Your task to perform on an android device: Toggle the flashlight Image 0: 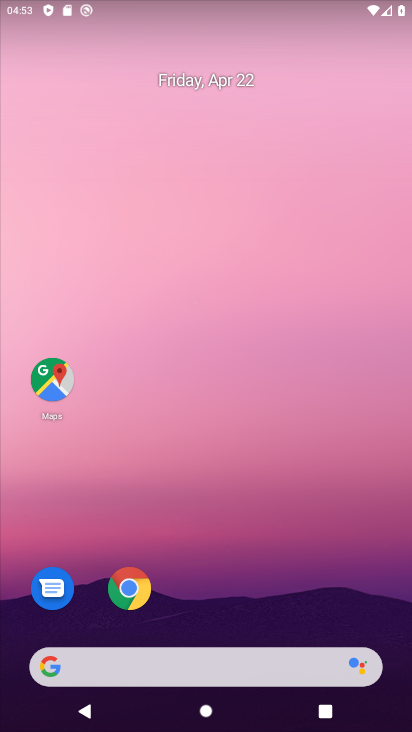
Step 0: drag from (222, 597) to (249, 117)
Your task to perform on an android device: Toggle the flashlight Image 1: 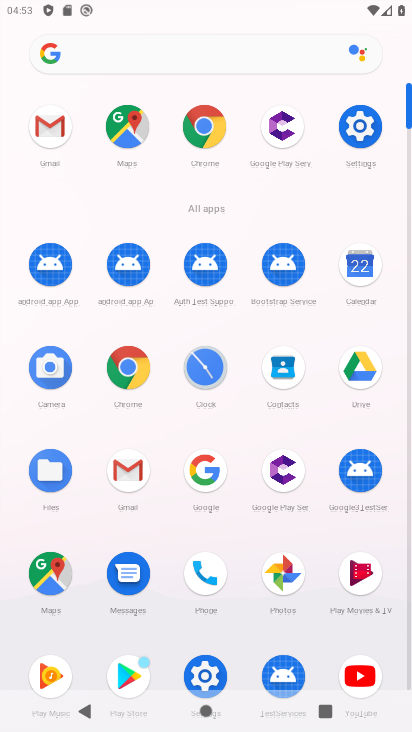
Step 1: click (359, 126)
Your task to perform on an android device: Toggle the flashlight Image 2: 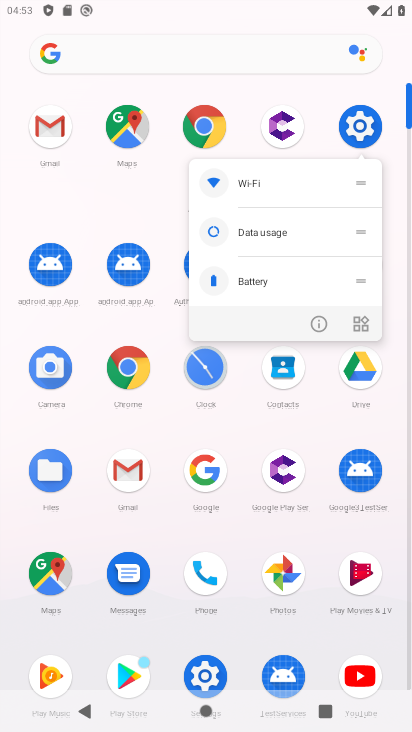
Step 2: click (354, 128)
Your task to perform on an android device: Toggle the flashlight Image 3: 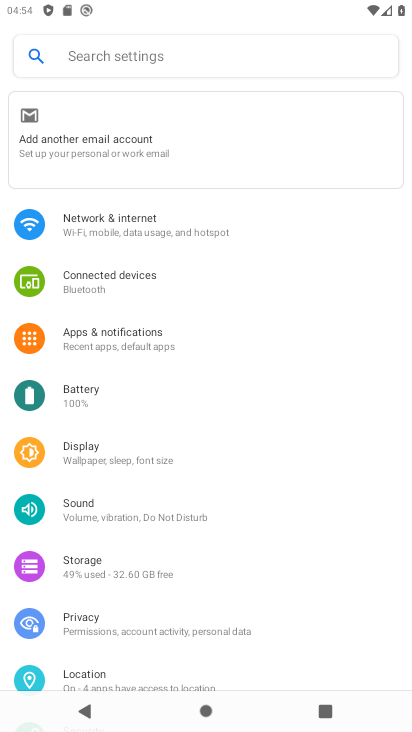
Step 3: click (127, 339)
Your task to perform on an android device: Toggle the flashlight Image 4: 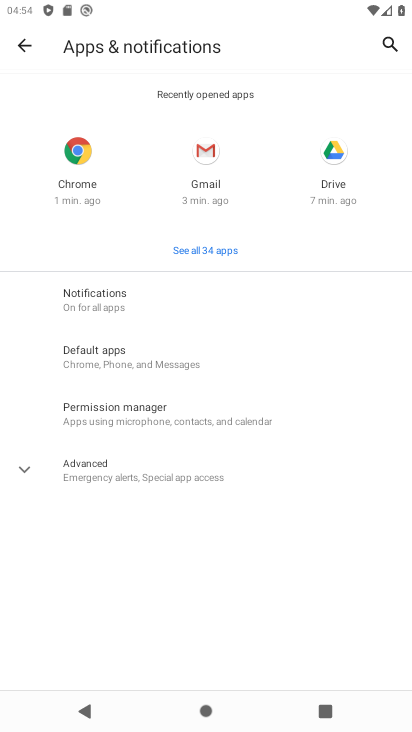
Step 4: click (119, 467)
Your task to perform on an android device: Toggle the flashlight Image 5: 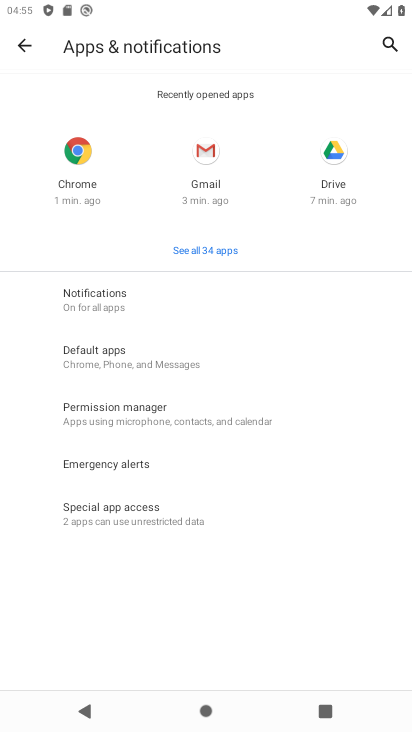
Step 5: task complete